Your task to perform on an android device: When is my next appointment? Image 0: 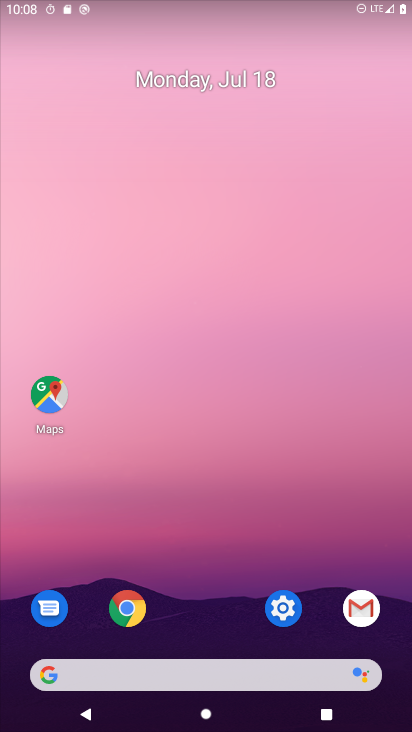
Step 0: drag from (303, 696) to (400, 158)
Your task to perform on an android device: When is my next appointment? Image 1: 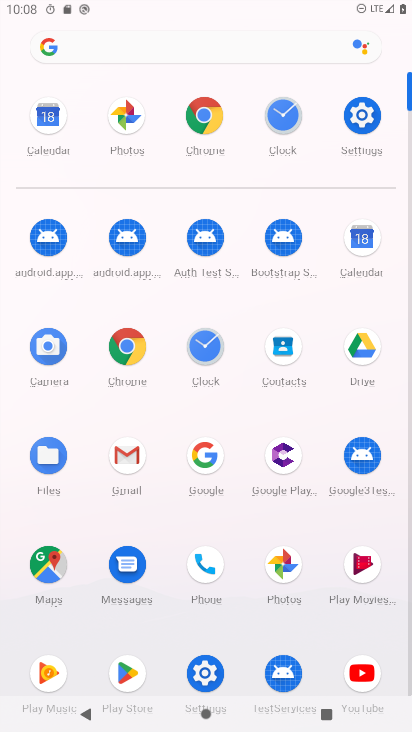
Step 1: click (372, 243)
Your task to perform on an android device: When is my next appointment? Image 2: 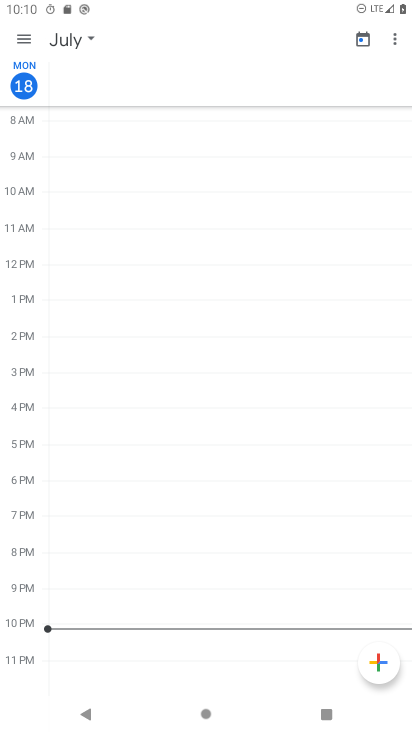
Step 2: task complete